Your task to perform on an android device: Check the weather Image 0: 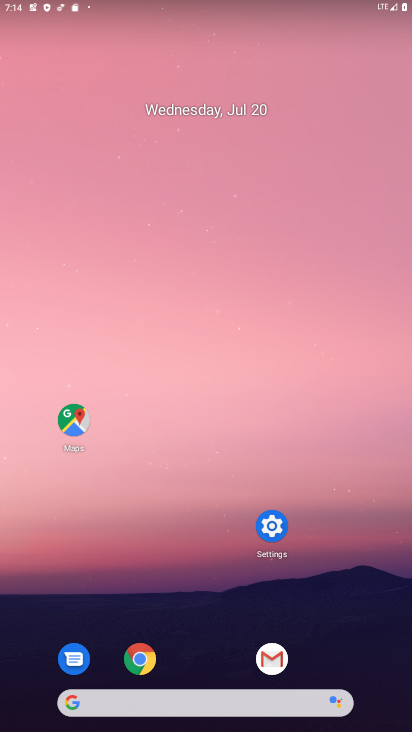
Step 0: click (181, 709)
Your task to perform on an android device: Check the weather Image 1: 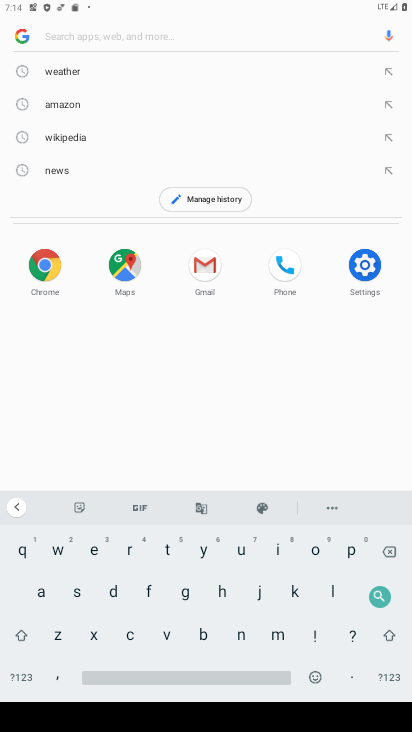
Step 1: click (81, 72)
Your task to perform on an android device: Check the weather Image 2: 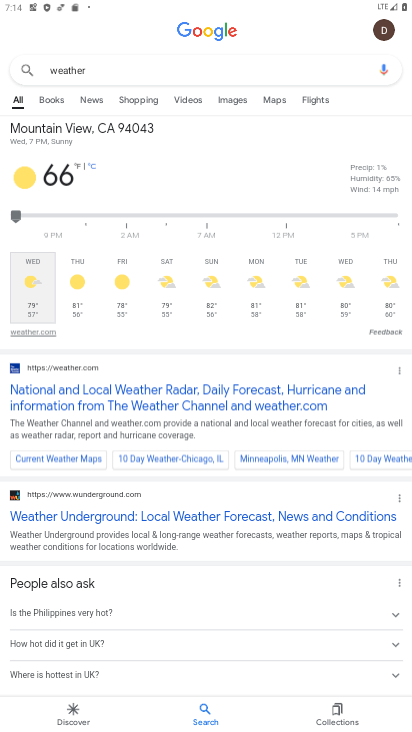
Step 2: task complete